Your task to perform on an android device: all mails in gmail Image 0: 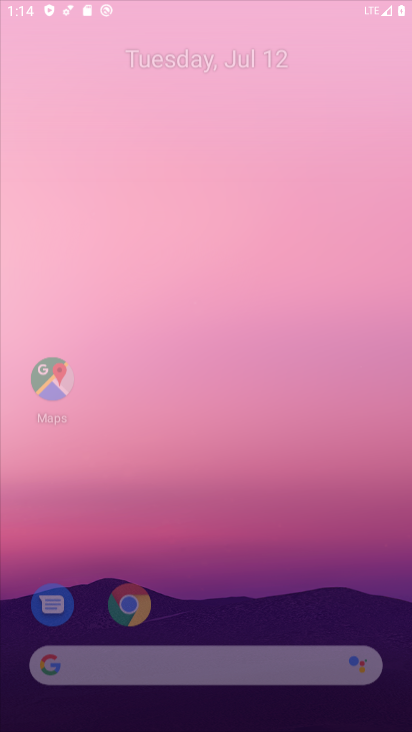
Step 0: click (323, 6)
Your task to perform on an android device: all mails in gmail Image 1: 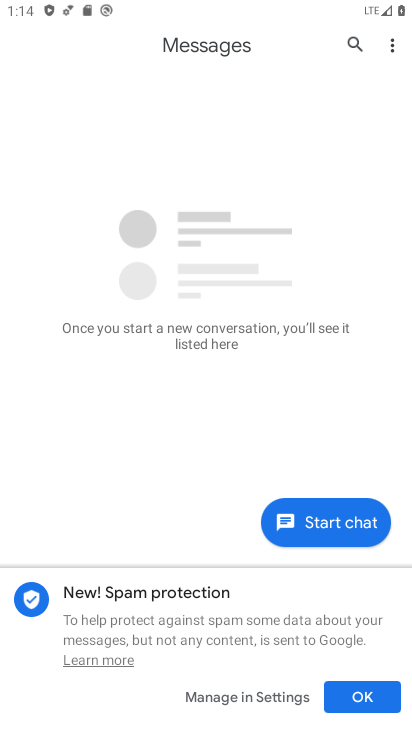
Step 1: press home button
Your task to perform on an android device: all mails in gmail Image 2: 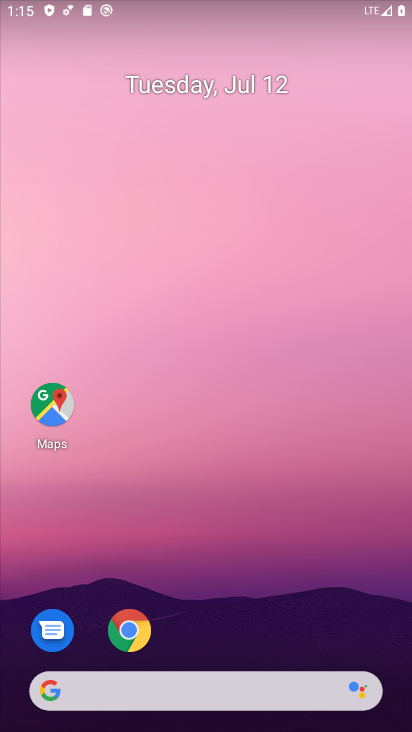
Step 2: drag from (352, 626) to (329, 65)
Your task to perform on an android device: all mails in gmail Image 3: 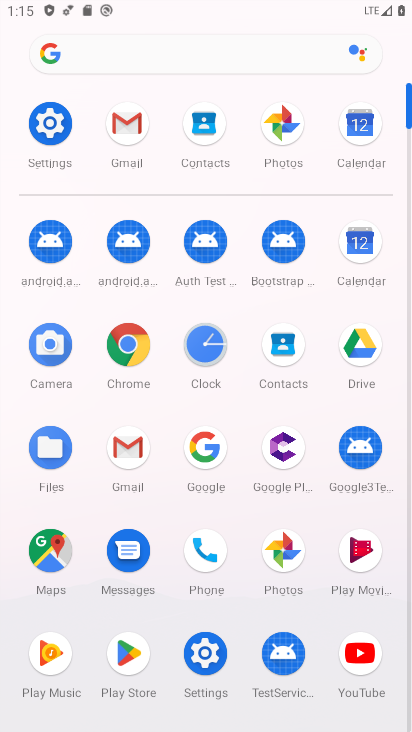
Step 3: click (125, 448)
Your task to perform on an android device: all mails in gmail Image 4: 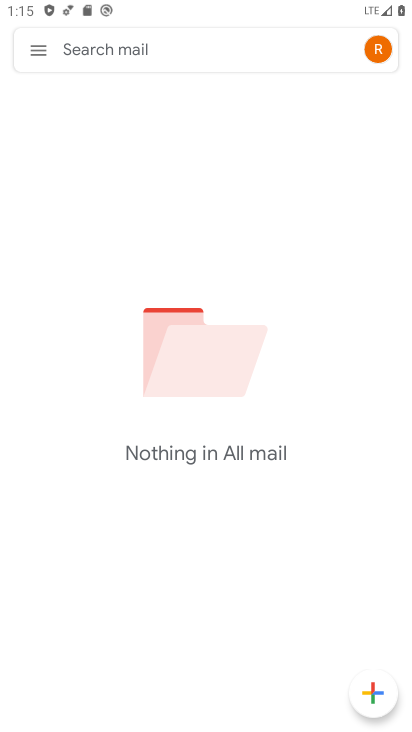
Step 4: click (33, 52)
Your task to perform on an android device: all mails in gmail Image 5: 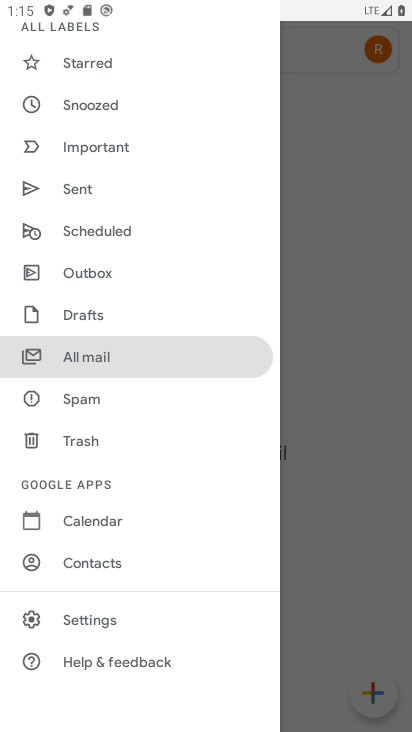
Step 5: click (131, 360)
Your task to perform on an android device: all mails in gmail Image 6: 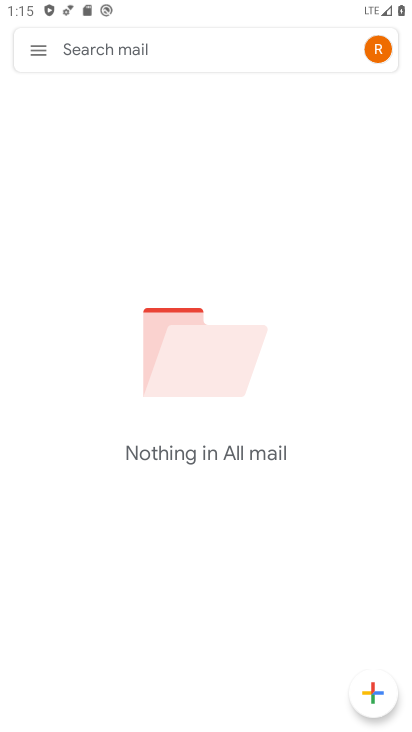
Step 6: task complete